Your task to perform on an android device: toggle show notifications on the lock screen Image 0: 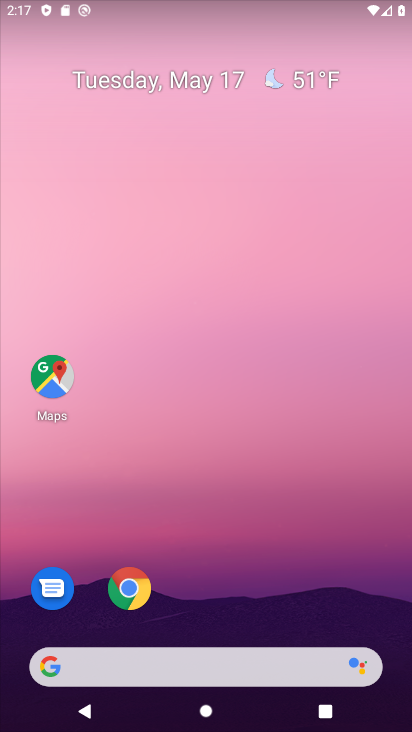
Step 0: drag from (337, 574) to (188, 1)
Your task to perform on an android device: toggle show notifications on the lock screen Image 1: 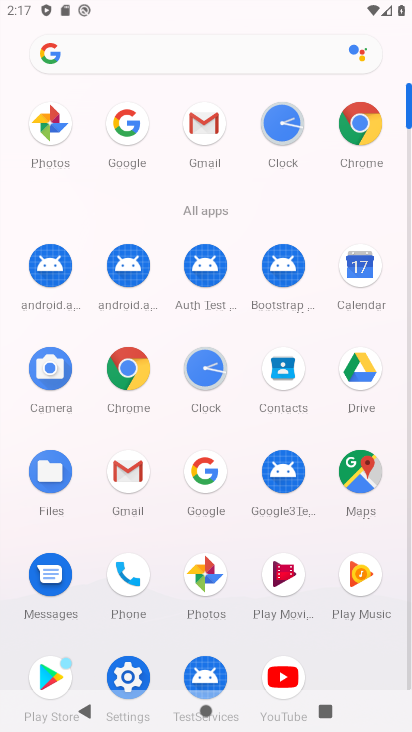
Step 1: click (134, 667)
Your task to perform on an android device: toggle show notifications on the lock screen Image 2: 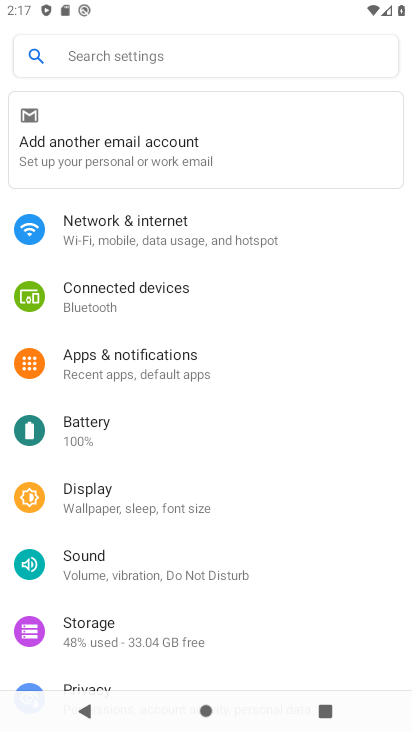
Step 2: click (177, 354)
Your task to perform on an android device: toggle show notifications on the lock screen Image 3: 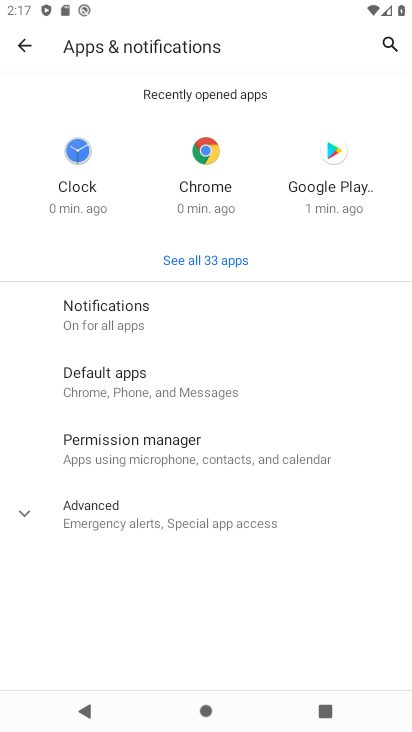
Step 3: click (175, 314)
Your task to perform on an android device: toggle show notifications on the lock screen Image 4: 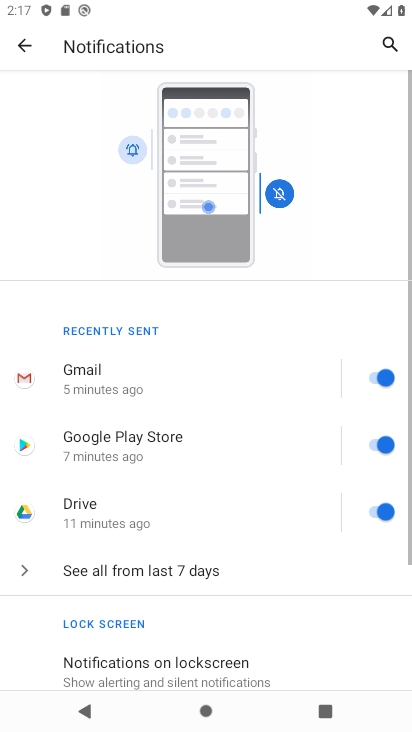
Step 4: click (245, 677)
Your task to perform on an android device: toggle show notifications on the lock screen Image 5: 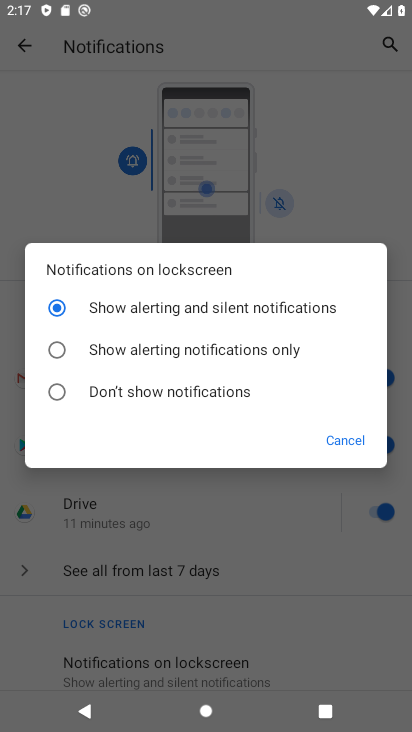
Step 5: click (167, 388)
Your task to perform on an android device: toggle show notifications on the lock screen Image 6: 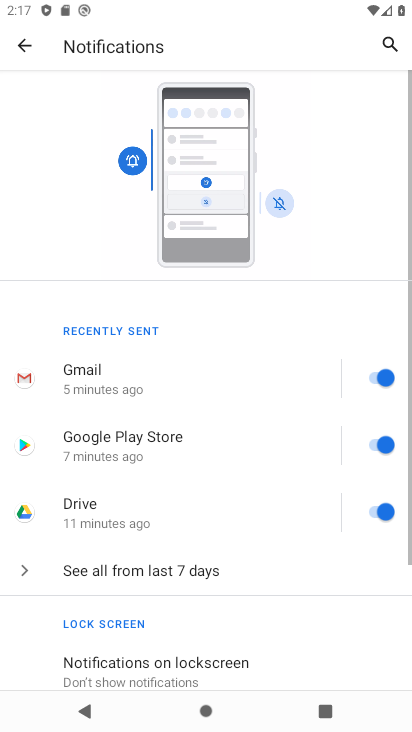
Step 6: task complete